Your task to perform on an android device: turn off airplane mode Image 0: 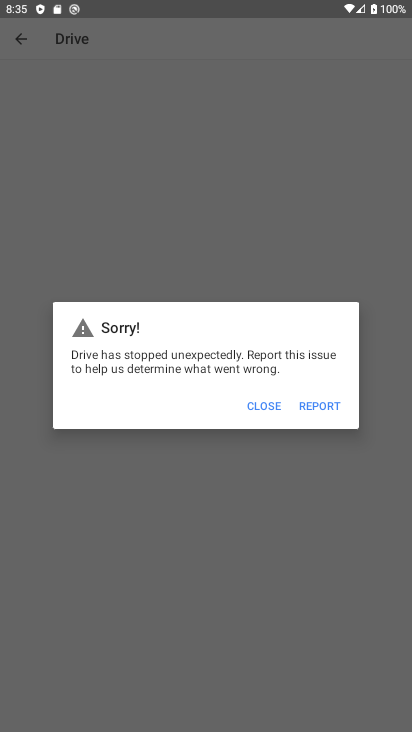
Step 0: press home button
Your task to perform on an android device: turn off airplane mode Image 1: 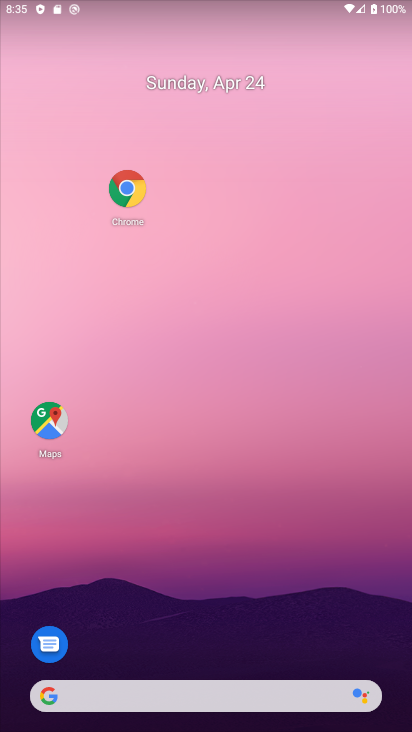
Step 1: drag from (191, 561) to (202, 201)
Your task to perform on an android device: turn off airplane mode Image 2: 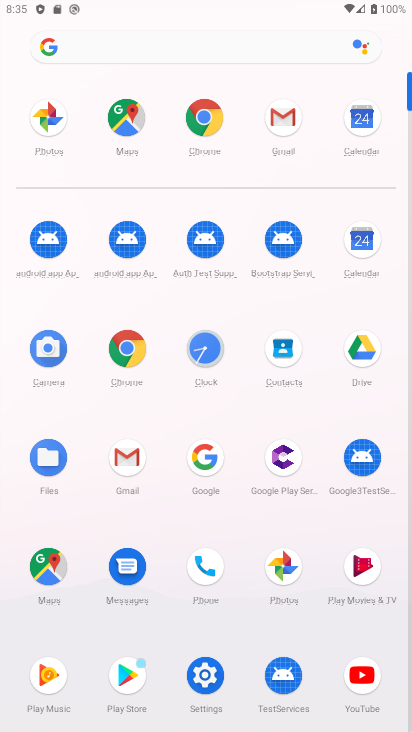
Step 2: click (217, 672)
Your task to perform on an android device: turn off airplane mode Image 3: 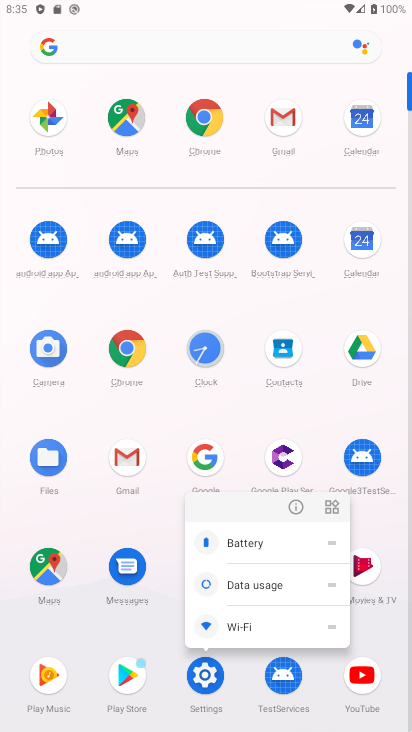
Step 3: click (289, 509)
Your task to perform on an android device: turn off airplane mode Image 4: 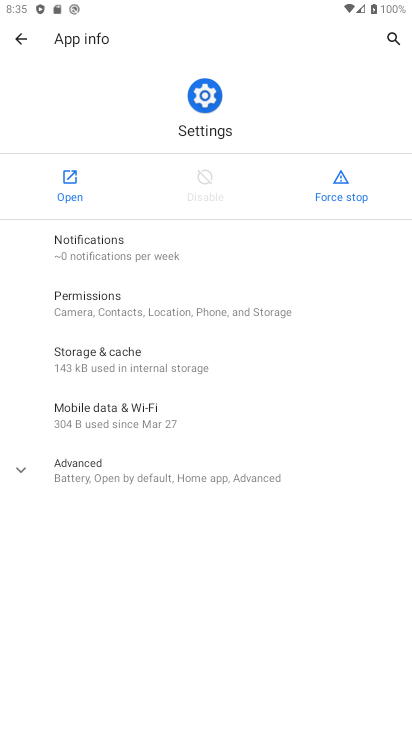
Step 4: click (62, 183)
Your task to perform on an android device: turn off airplane mode Image 5: 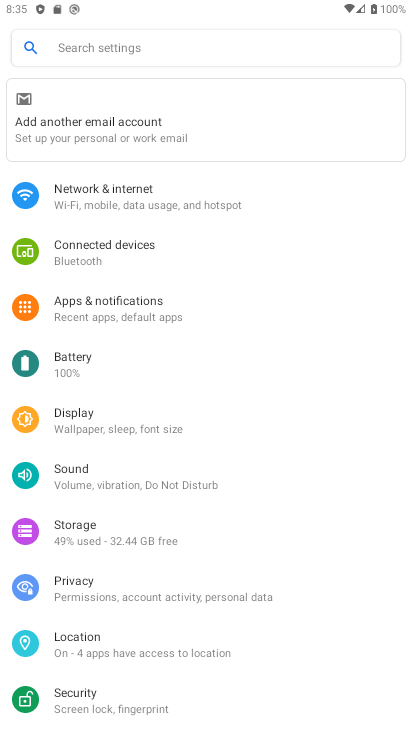
Step 5: click (116, 204)
Your task to perform on an android device: turn off airplane mode Image 6: 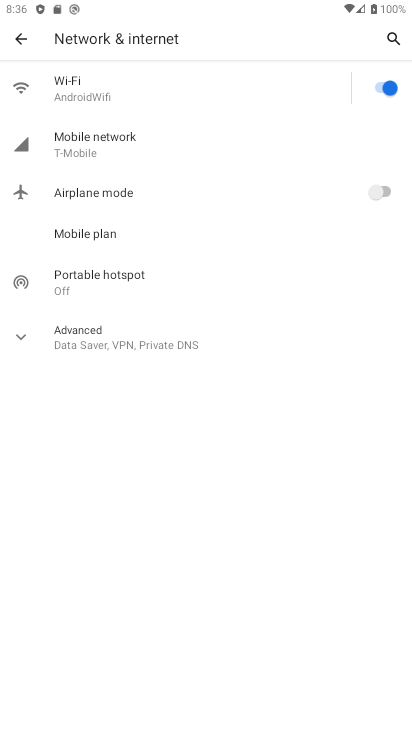
Step 6: task complete